Your task to perform on an android device: toggle show notifications on the lock screen Image 0: 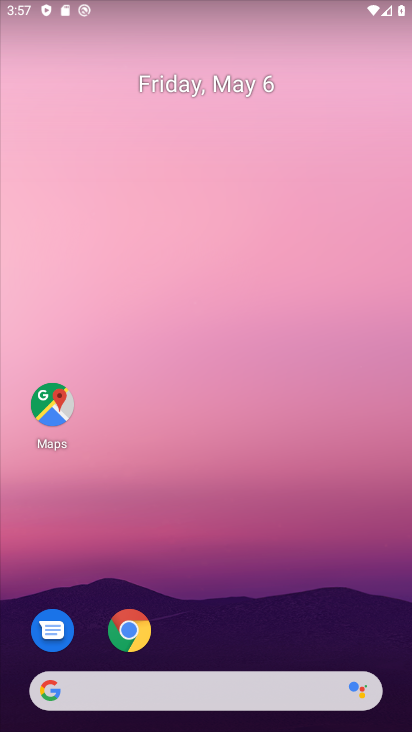
Step 0: drag from (250, 685) to (350, 5)
Your task to perform on an android device: toggle show notifications on the lock screen Image 1: 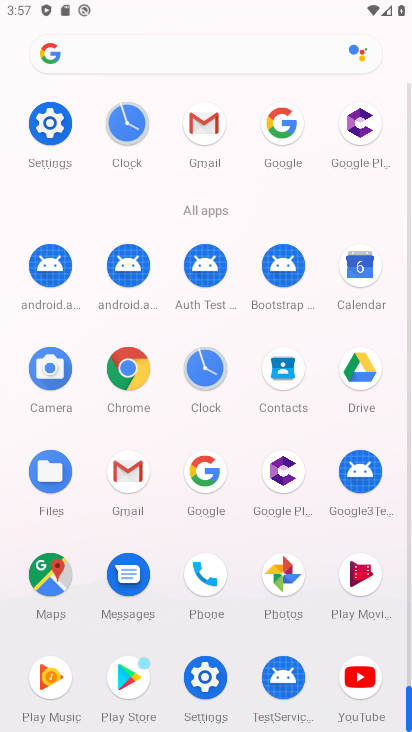
Step 1: drag from (233, 481) to (233, 243)
Your task to perform on an android device: toggle show notifications on the lock screen Image 2: 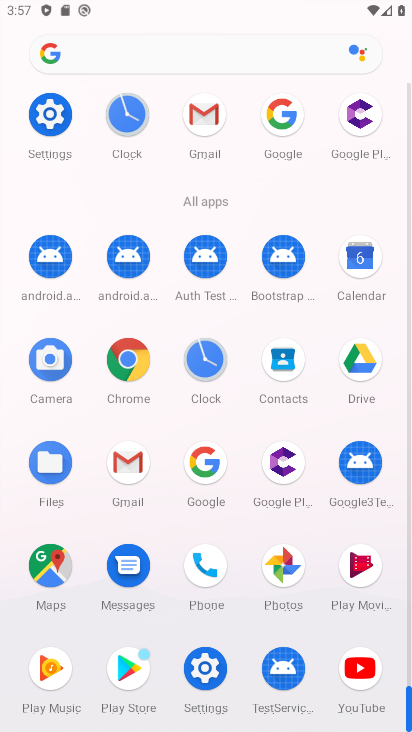
Step 2: click (58, 129)
Your task to perform on an android device: toggle show notifications on the lock screen Image 3: 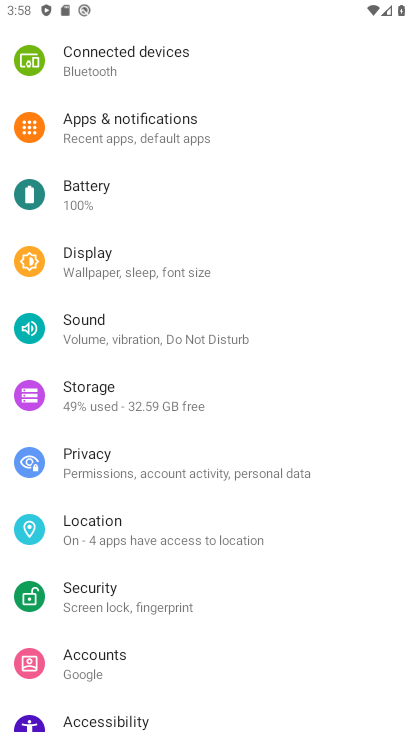
Step 3: click (276, 145)
Your task to perform on an android device: toggle show notifications on the lock screen Image 4: 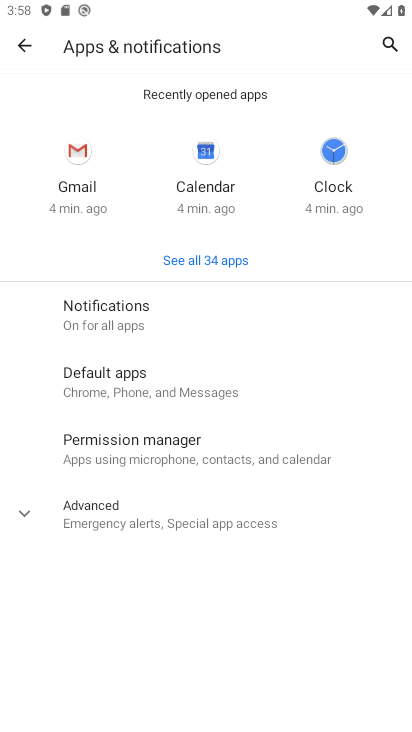
Step 4: click (177, 322)
Your task to perform on an android device: toggle show notifications on the lock screen Image 5: 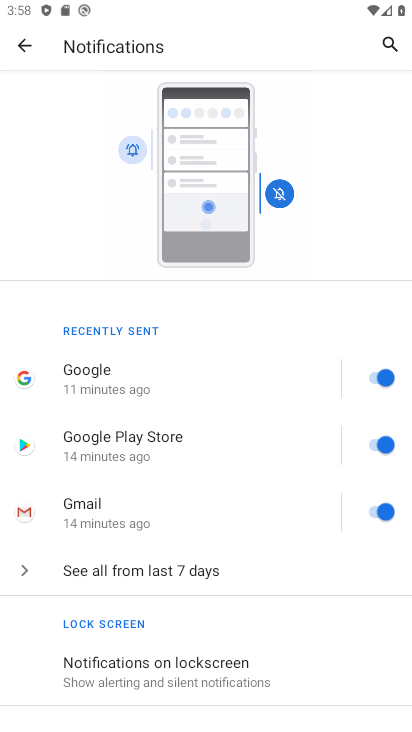
Step 5: click (197, 676)
Your task to perform on an android device: toggle show notifications on the lock screen Image 6: 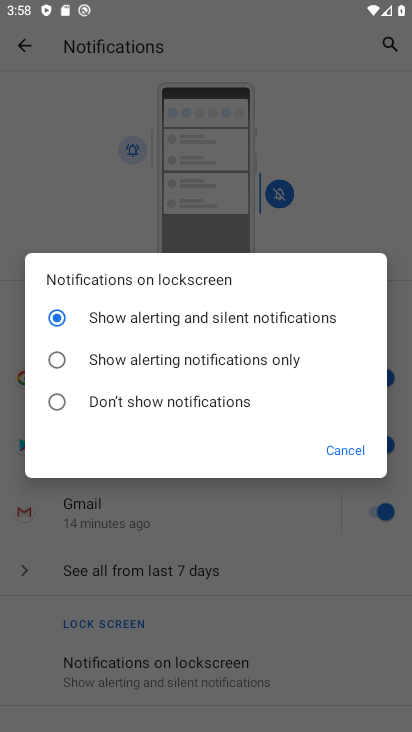
Step 6: click (129, 410)
Your task to perform on an android device: toggle show notifications on the lock screen Image 7: 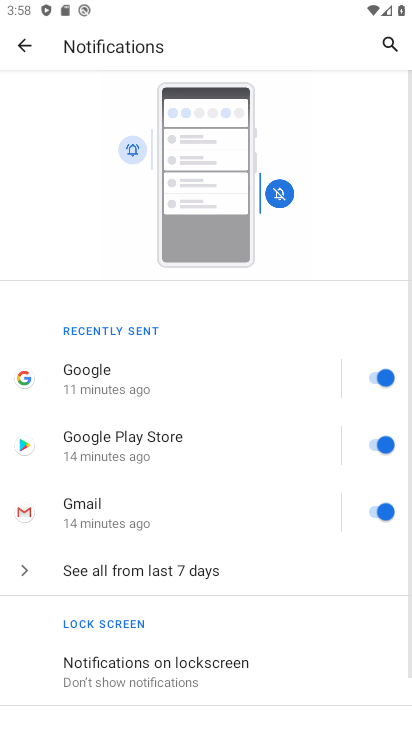
Step 7: task complete